Your task to perform on an android device: open the mobile data screen to see how much data has been used Image 0: 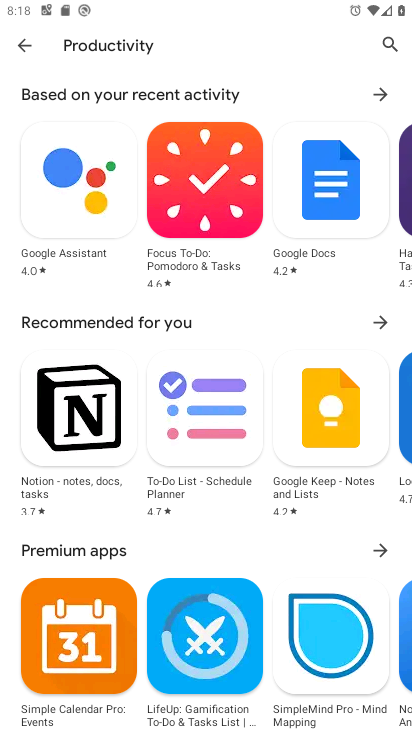
Step 0: press home button
Your task to perform on an android device: open the mobile data screen to see how much data has been used Image 1: 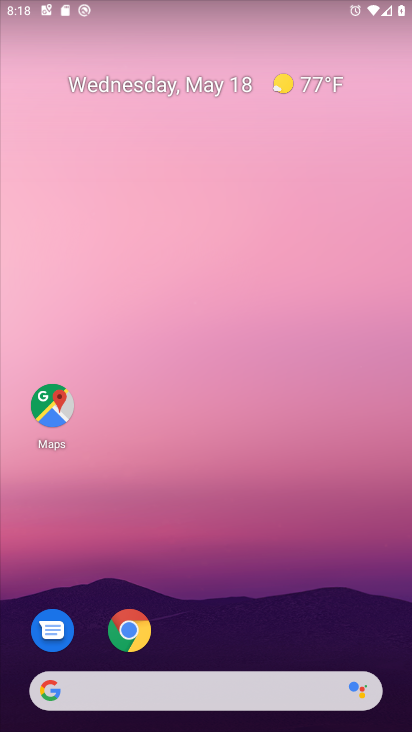
Step 1: drag from (303, 626) to (287, 194)
Your task to perform on an android device: open the mobile data screen to see how much data has been used Image 2: 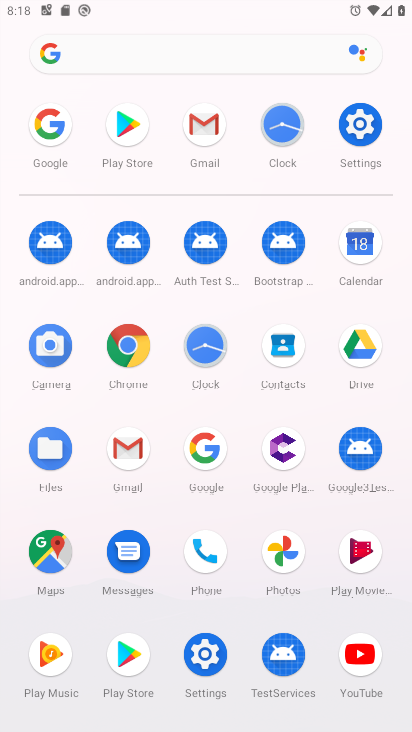
Step 2: click (368, 110)
Your task to perform on an android device: open the mobile data screen to see how much data has been used Image 3: 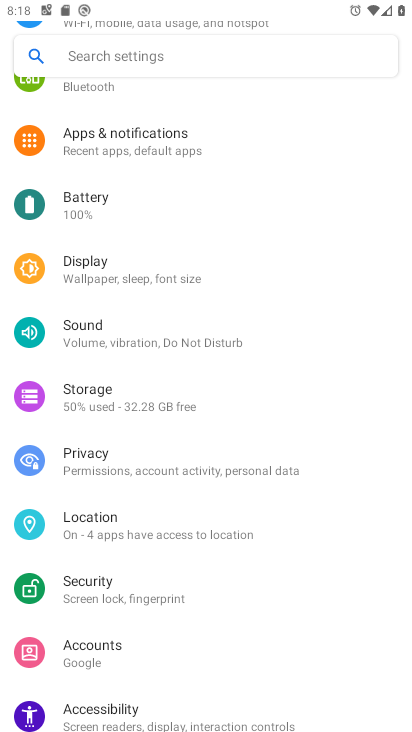
Step 3: drag from (227, 281) to (195, 537)
Your task to perform on an android device: open the mobile data screen to see how much data has been used Image 4: 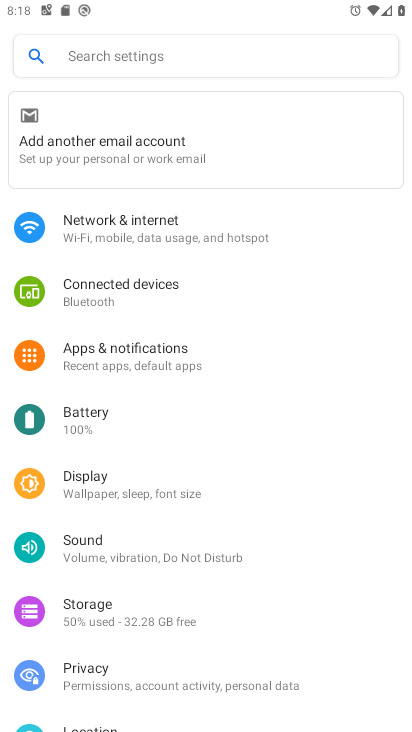
Step 4: click (213, 367)
Your task to perform on an android device: open the mobile data screen to see how much data has been used Image 5: 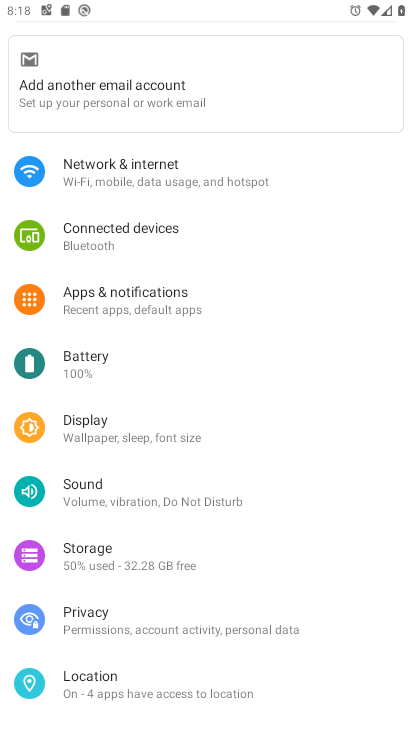
Step 5: click (180, 179)
Your task to perform on an android device: open the mobile data screen to see how much data has been used Image 6: 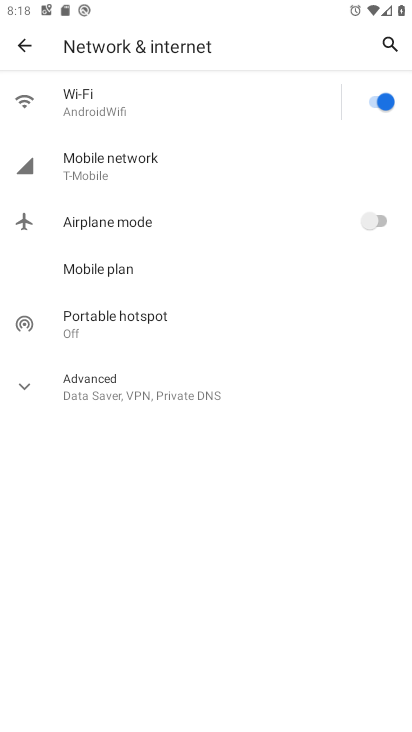
Step 6: click (145, 179)
Your task to perform on an android device: open the mobile data screen to see how much data has been used Image 7: 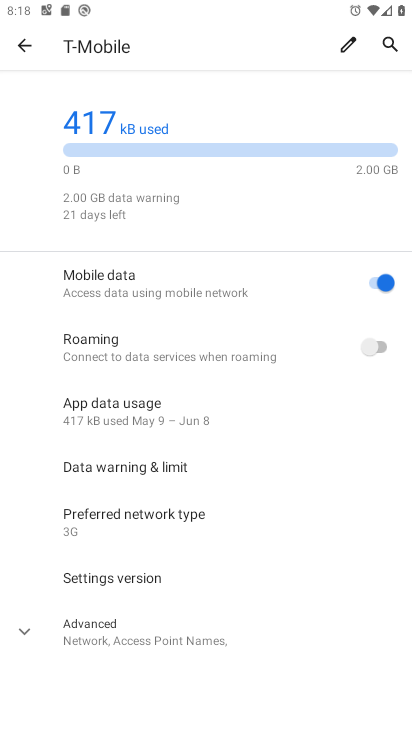
Step 7: task complete